Your task to perform on an android device: star an email in the gmail app Image 0: 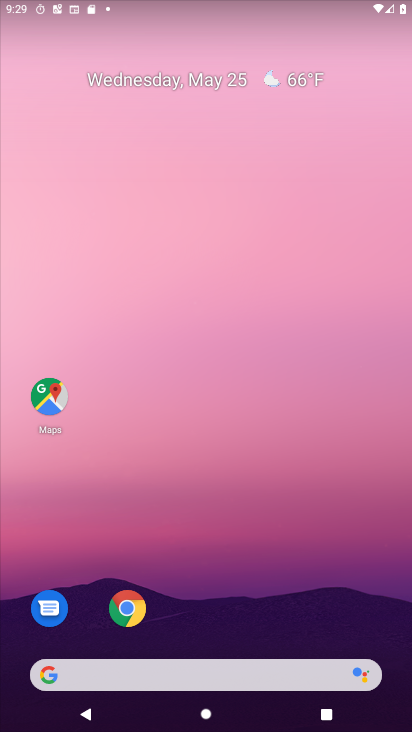
Step 0: drag from (231, 729) to (176, 1)
Your task to perform on an android device: star an email in the gmail app Image 1: 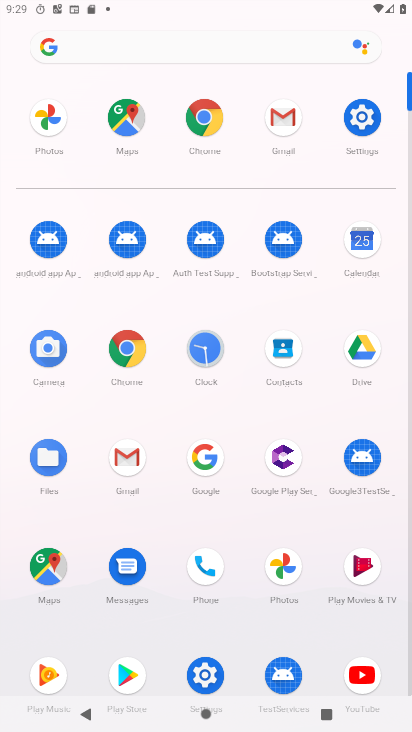
Step 1: click (131, 456)
Your task to perform on an android device: star an email in the gmail app Image 2: 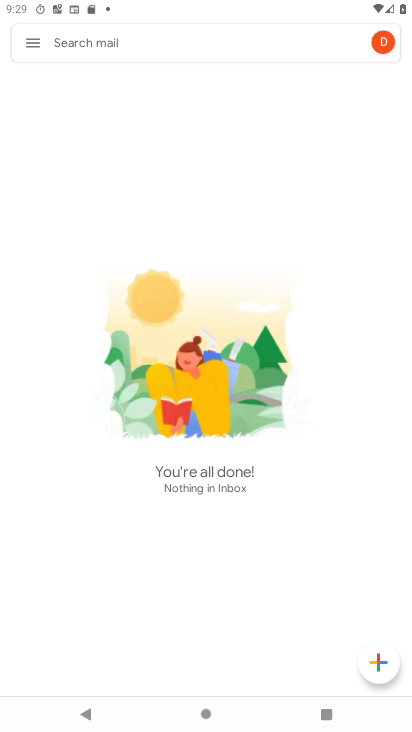
Step 2: task complete